Your task to perform on an android device: turn on the 12-hour format for clock Image 0: 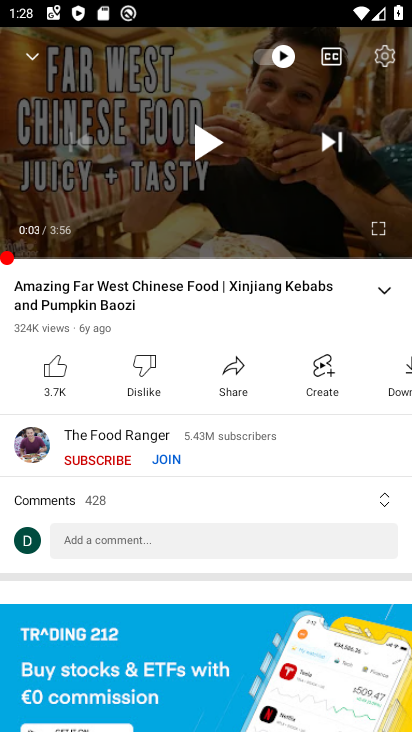
Step 0: press home button
Your task to perform on an android device: turn on the 12-hour format for clock Image 1: 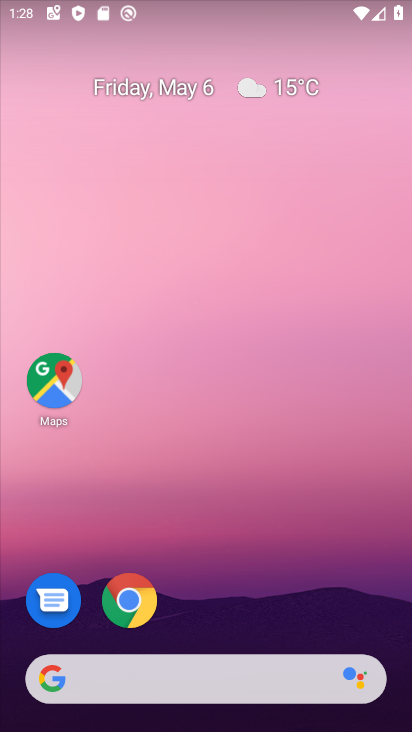
Step 1: drag from (300, 617) to (298, 243)
Your task to perform on an android device: turn on the 12-hour format for clock Image 2: 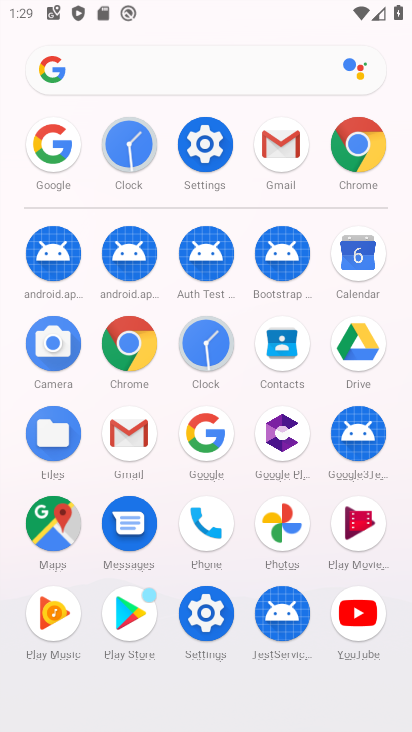
Step 2: click (207, 348)
Your task to perform on an android device: turn on the 12-hour format for clock Image 3: 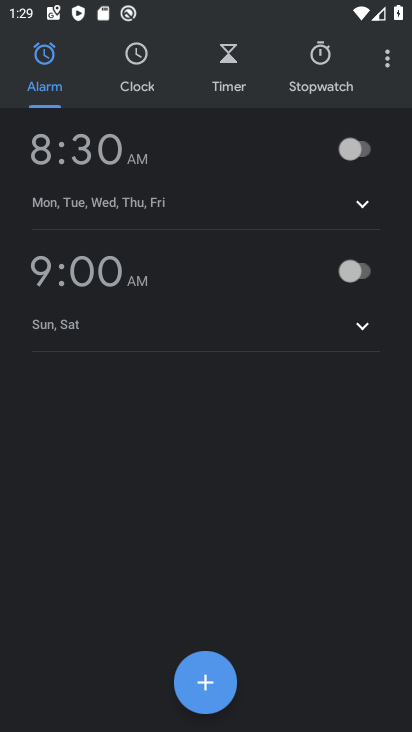
Step 3: click (391, 62)
Your task to perform on an android device: turn on the 12-hour format for clock Image 4: 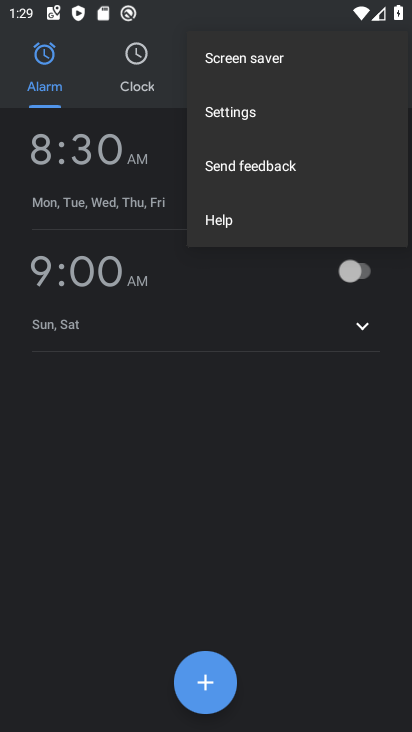
Step 4: click (296, 121)
Your task to perform on an android device: turn on the 12-hour format for clock Image 5: 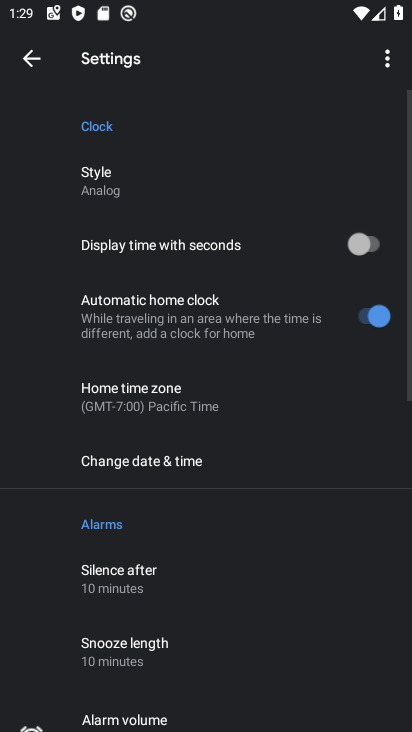
Step 5: click (206, 466)
Your task to perform on an android device: turn on the 12-hour format for clock Image 6: 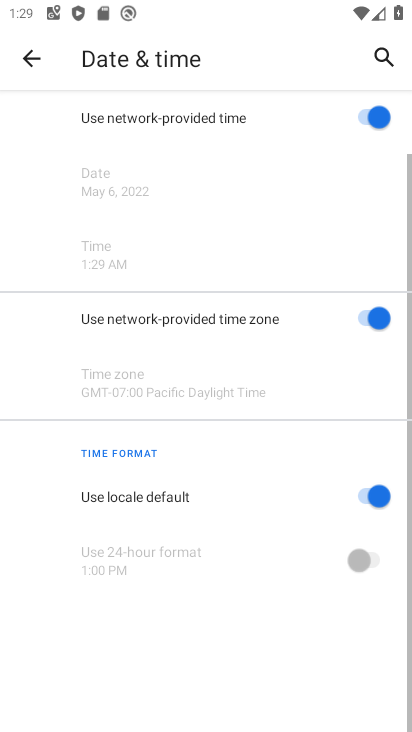
Step 6: task complete